Your task to perform on an android device: see sites visited before in the chrome app Image 0: 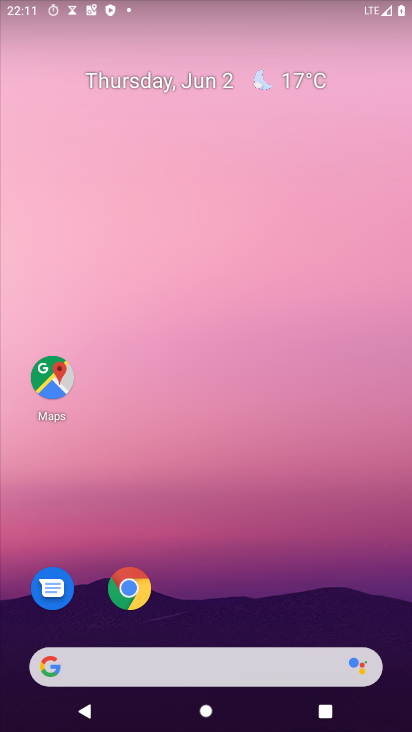
Step 0: click (139, 585)
Your task to perform on an android device: see sites visited before in the chrome app Image 1: 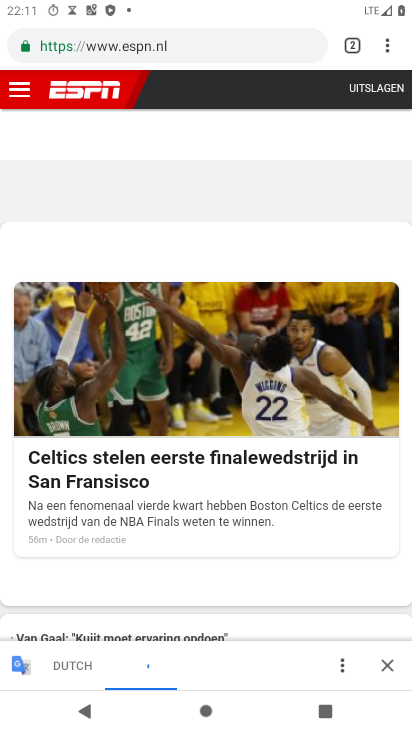
Step 1: task complete